Your task to perform on an android device: turn off location history Image 0: 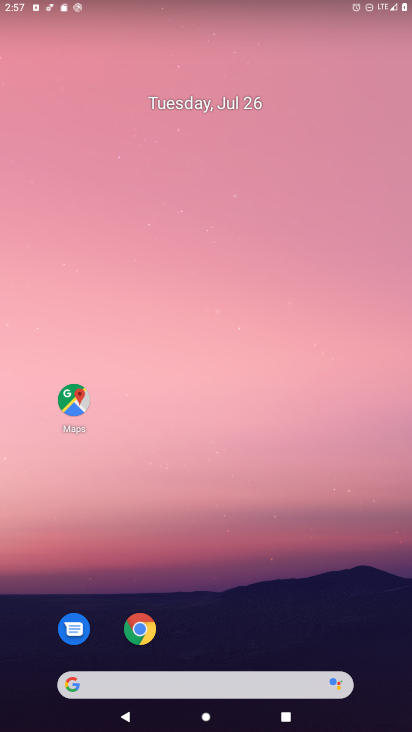
Step 0: click (75, 402)
Your task to perform on an android device: turn off location history Image 1: 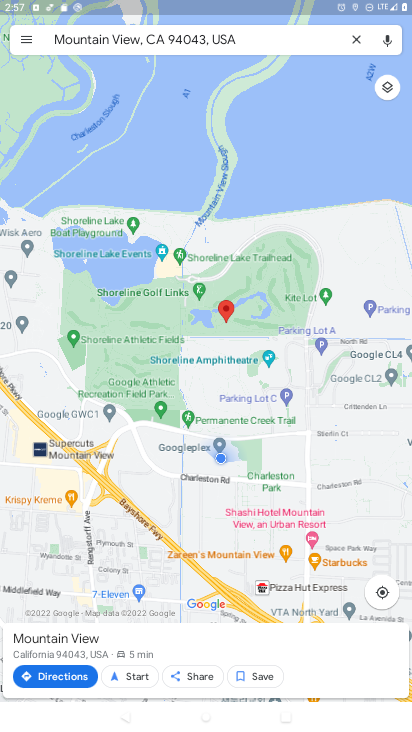
Step 1: click (358, 39)
Your task to perform on an android device: turn off location history Image 2: 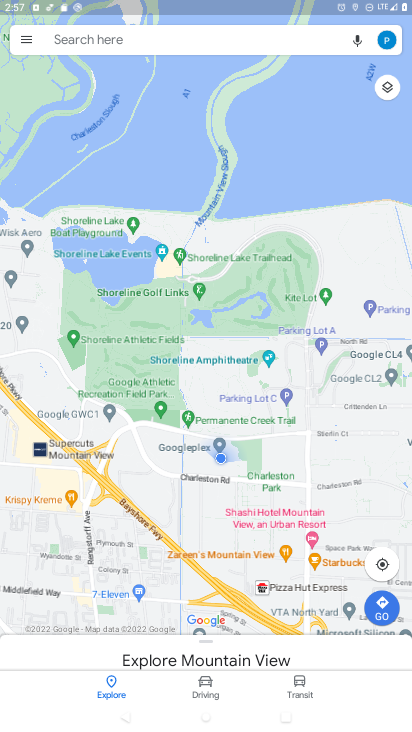
Step 2: click (26, 37)
Your task to perform on an android device: turn off location history Image 3: 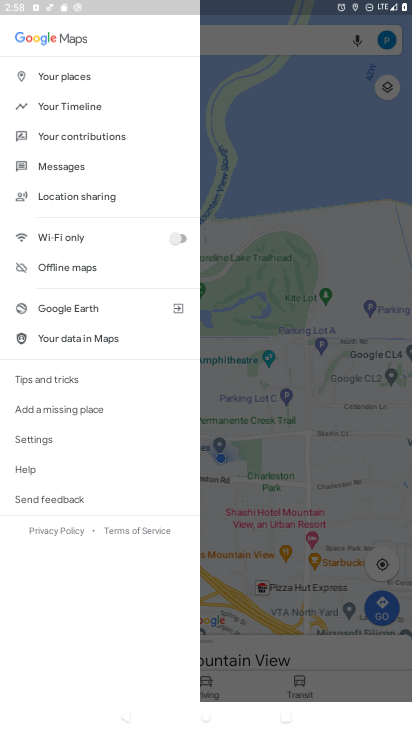
Step 3: click (39, 439)
Your task to perform on an android device: turn off location history Image 4: 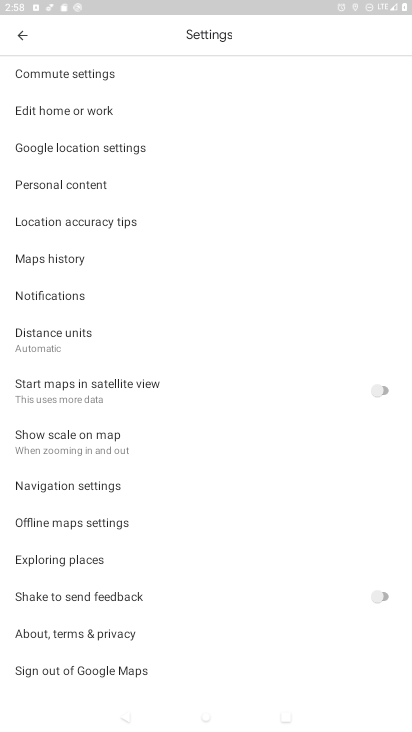
Step 4: click (48, 183)
Your task to perform on an android device: turn off location history Image 5: 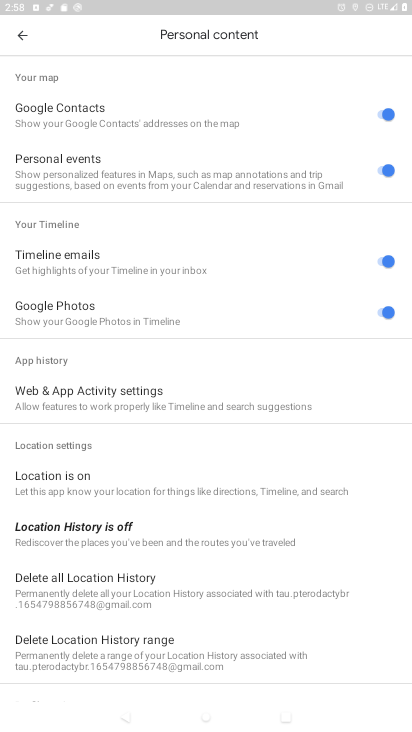
Step 5: task complete